Your task to perform on an android device: Turn on the flashlight Image 0: 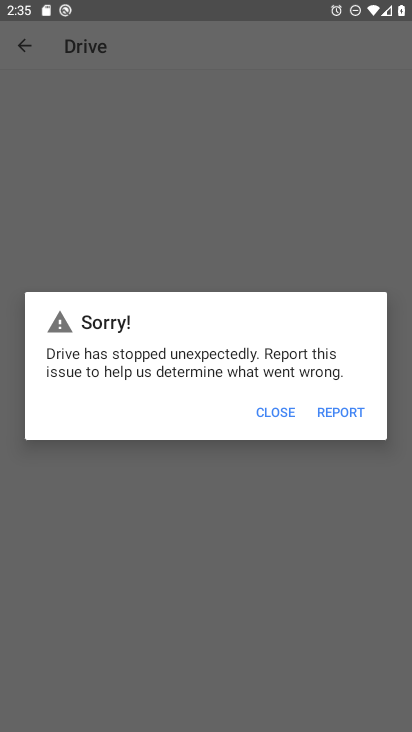
Step 0: press home button
Your task to perform on an android device: Turn on the flashlight Image 1: 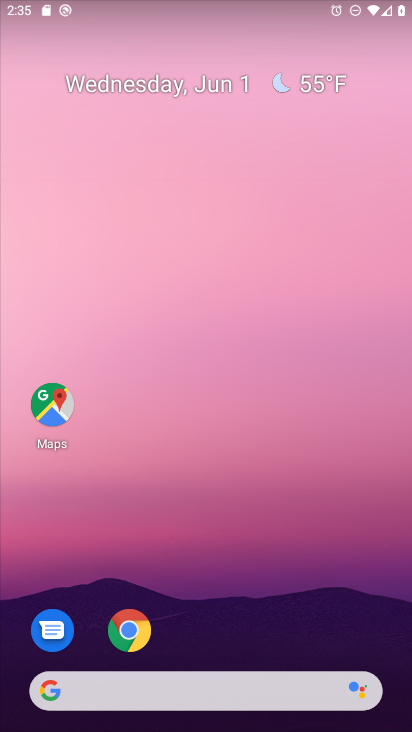
Step 1: task complete